Your task to perform on an android device: turn on translation in the chrome app Image 0: 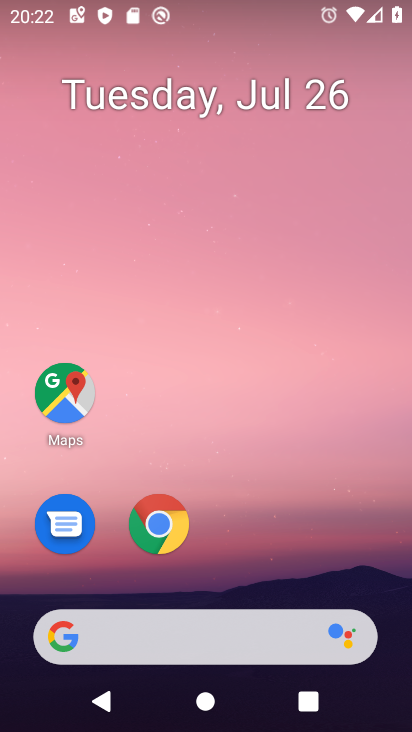
Step 0: click (160, 516)
Your task to perform on an android device: turn on translation in the chrome app Image 1: 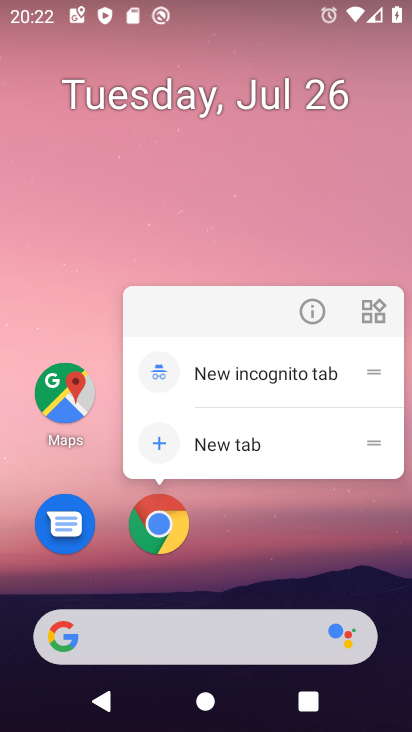
Step 1: click (161, 527)
Your task to perform on an android device: turn on translation in the chrome app Image 2: 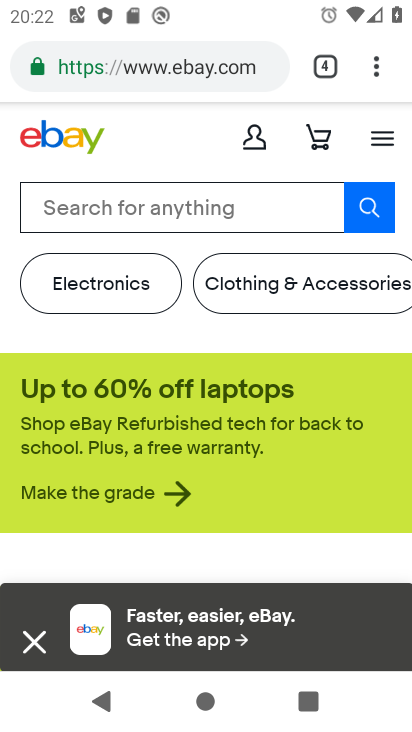
Step 2: click (375, 70)
Your task to perform on an android device: turn on translation in the chrome app Image 3: 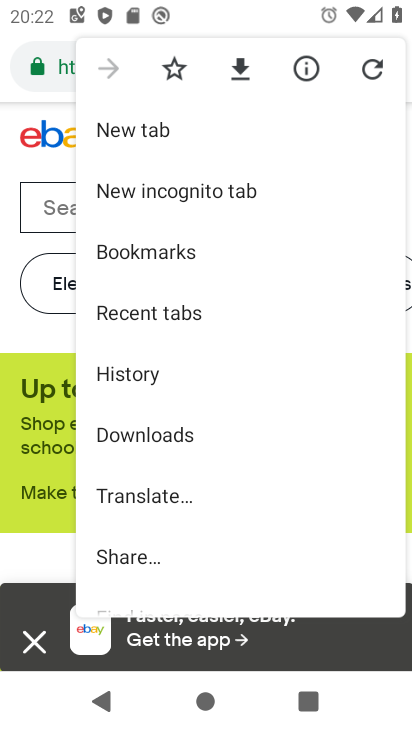
Step 3: drag from (270, 401) to (299, 12)
Your task to perform on an android device: turn on translation in the chrome app Image 4: 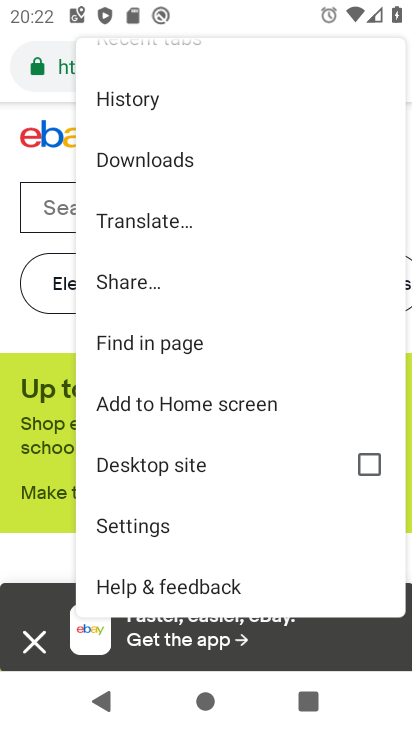
Step 4: click (150, 526)
Your task to perform on an android device: turn on translation in the chrome app Image 5: 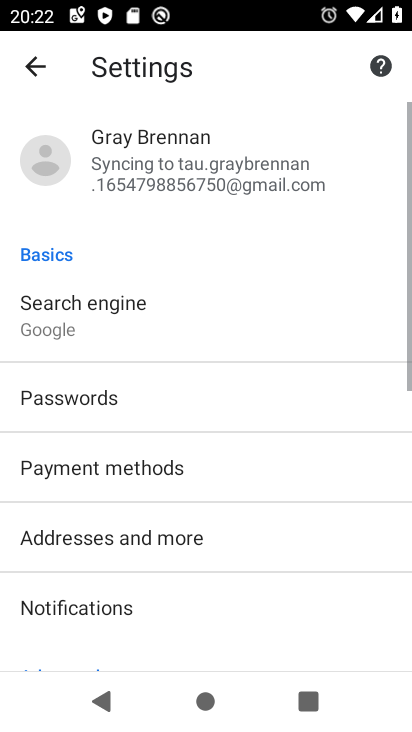
Step 5: drag from (242, 566) to (266, 61)
Your task to perform on an android device: turn on translation in the chrome app Image 6: 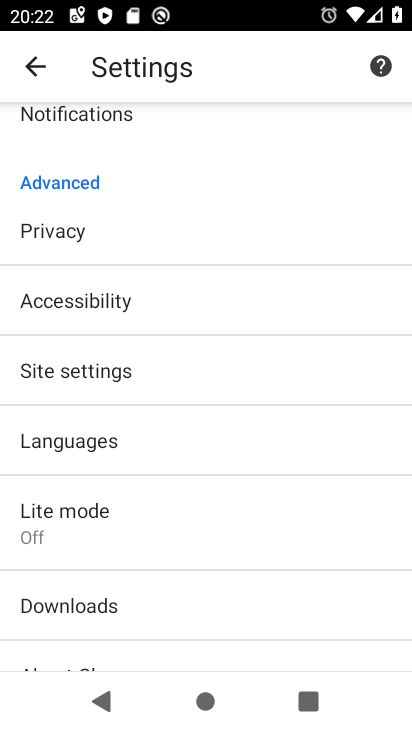
Step 6: click (179, 429)
Your task to perform on an android device: turn on translation in the chrome app Image 7: 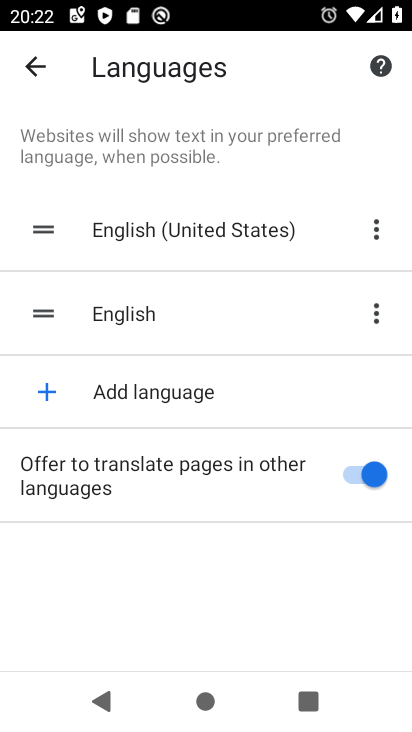
Step 7: task complete